Your task to perform on an android device: Open the phone app and click the voicemail tab. Image 0: 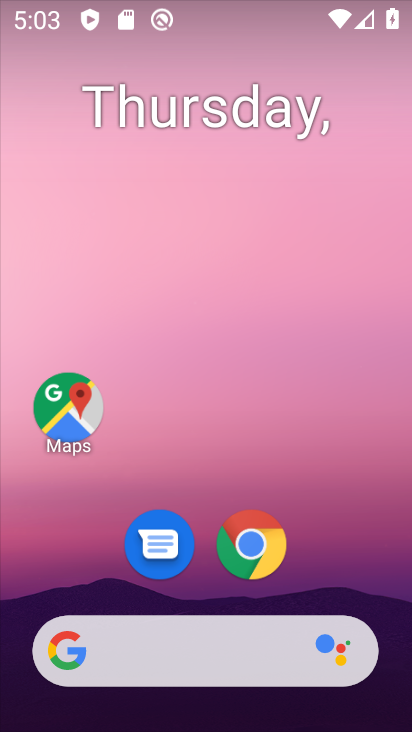
Step 0: drag from (355, 552) to (266, 59)
Your task to perform on an android device: Open the phone app and click the voicemail tab. Image 1: 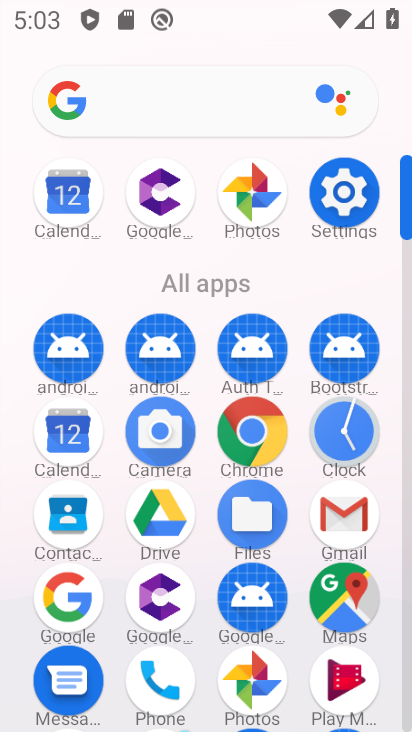
Step 1: click (177, 672)
Your task to perform on an android device: Open the phone app and click the voicemail tab. Image 2: 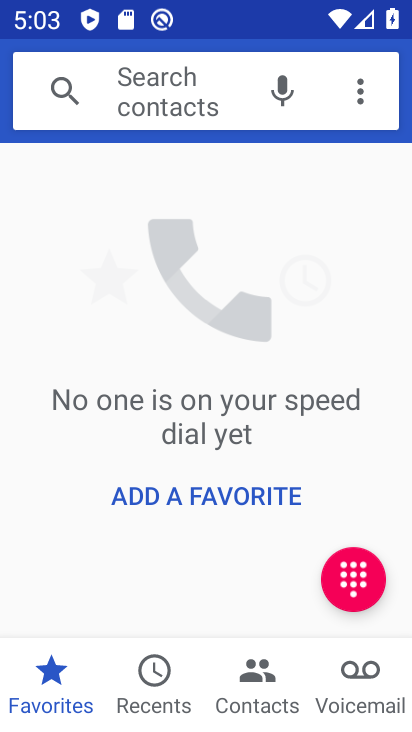
Step 2: click (380, 671)
Your task to perform on an android device: Open the phone app and click the voicemail tab. Image 3: 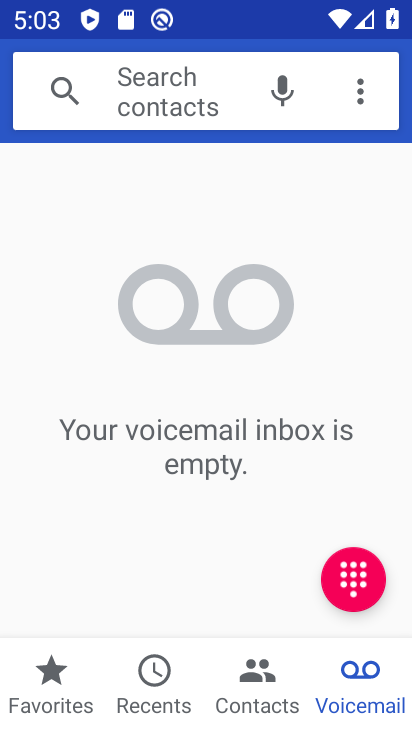
Step 3: task complete